Your task to perform on an android device: Go to privacy settings Image 0: 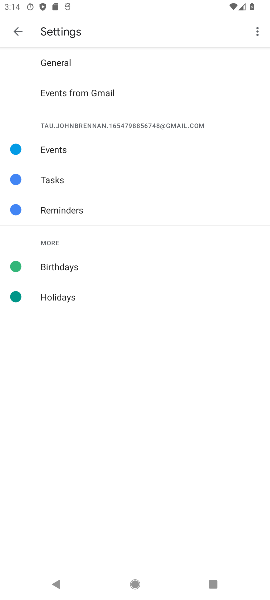
Step 0: press home button
Your task to perform on an android device: Go to privacy settings Image 1: 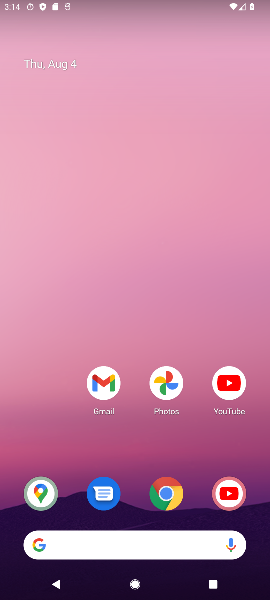
Step 1: drag from (23, 550) to (254, 36)
Your task to perform on an android device: Go to privacy settings Image 2: 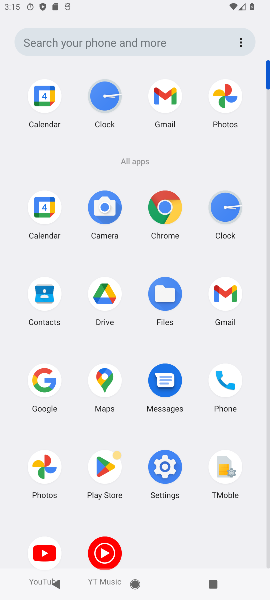
Step 2: click (174, 474)
Your task to perform on an android device: Go to privacy settings Image 3: 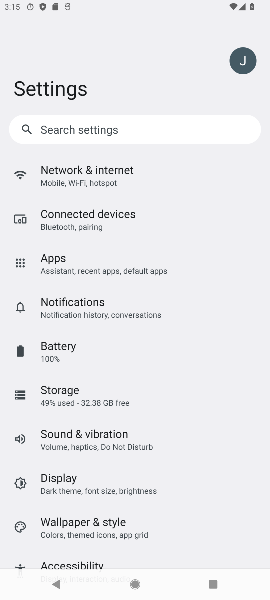
Step 3: drag from (85, 487) to (92, 305)
Your task to perform on an android device: Go to privacy settings Image 4: 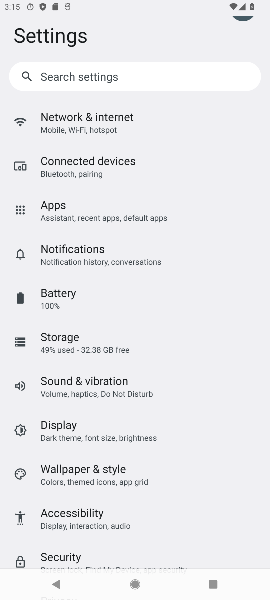
Step 4: drag from (139, 531) to (184, 202)
Your task to perform on an android device: Go to privacy settings Image 5: 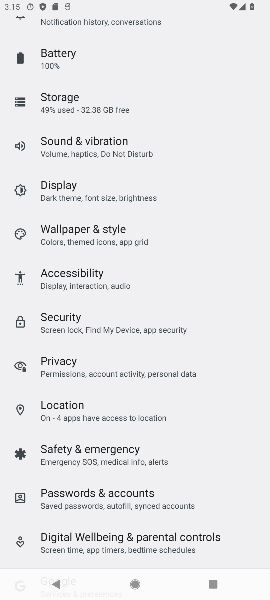
Step 5: click (64, 359)
Your task to perform on an android device: Go to privacy settings Image 6: 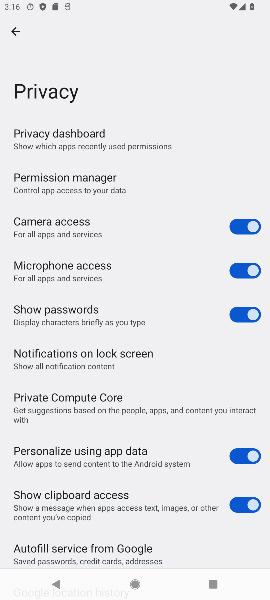
Step 6: task complete